Your task to perform on an android device: Check the weather Image 0: 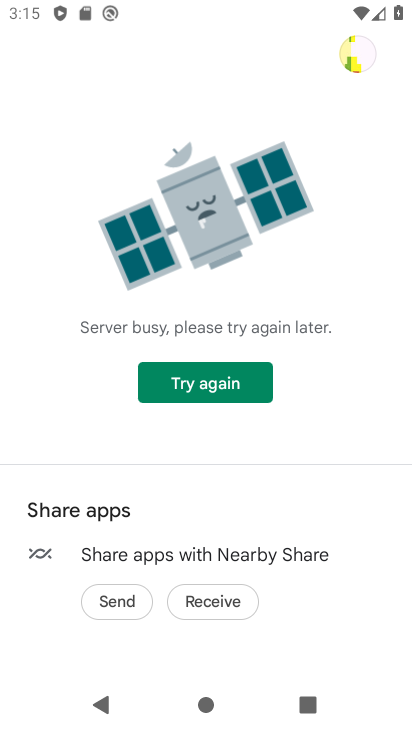
Step 0: press home button
Your task to perform on an android device: Check the weather Image 1: 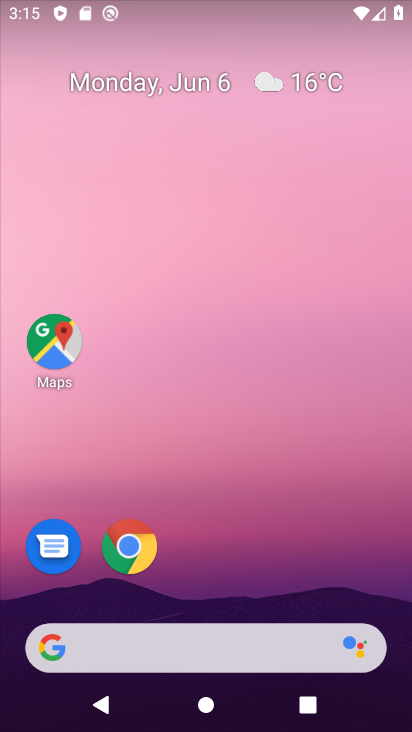
Step 1: click (216, 632)
Your task to perform on an android device: Check the weather Image 2: 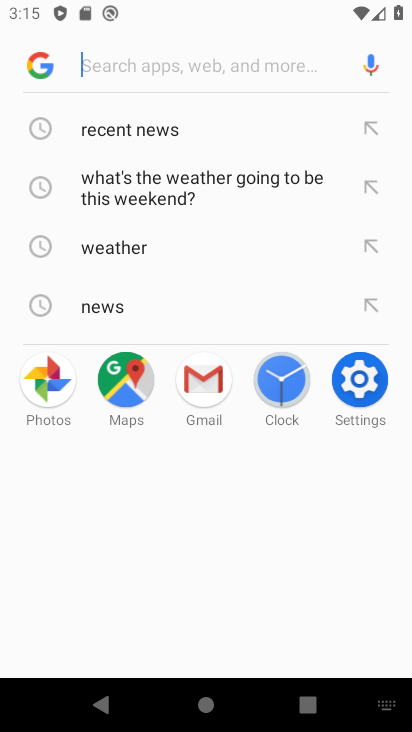
Step 2: click (135, 246)
Your task to perform on an android device: Check the weather Image 3: 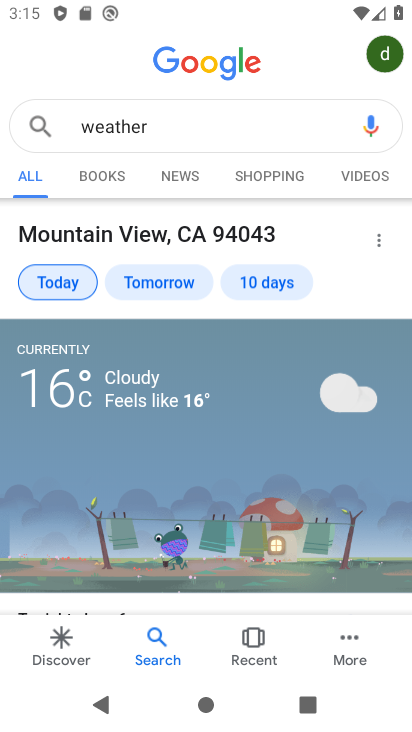
Step 3: task complete